Your task to perform on an android device: turn off priority inbox in the gmail app Image 0: 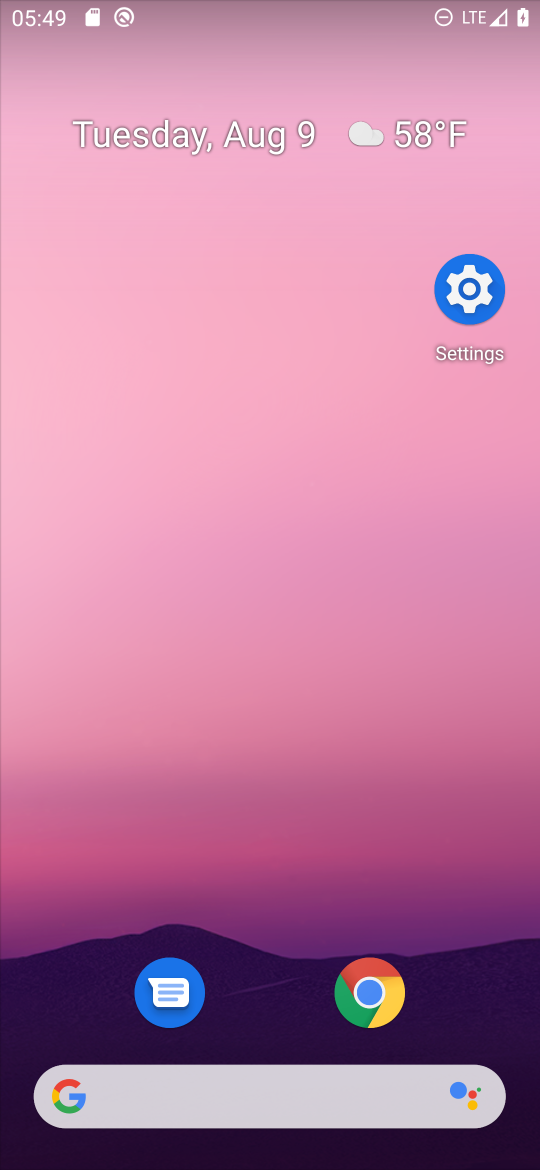
Step 0: drag from (322, 1102) to (445, 14)
Your task to perform on an android device: turn off priority inbox in the gmail app Image 1: 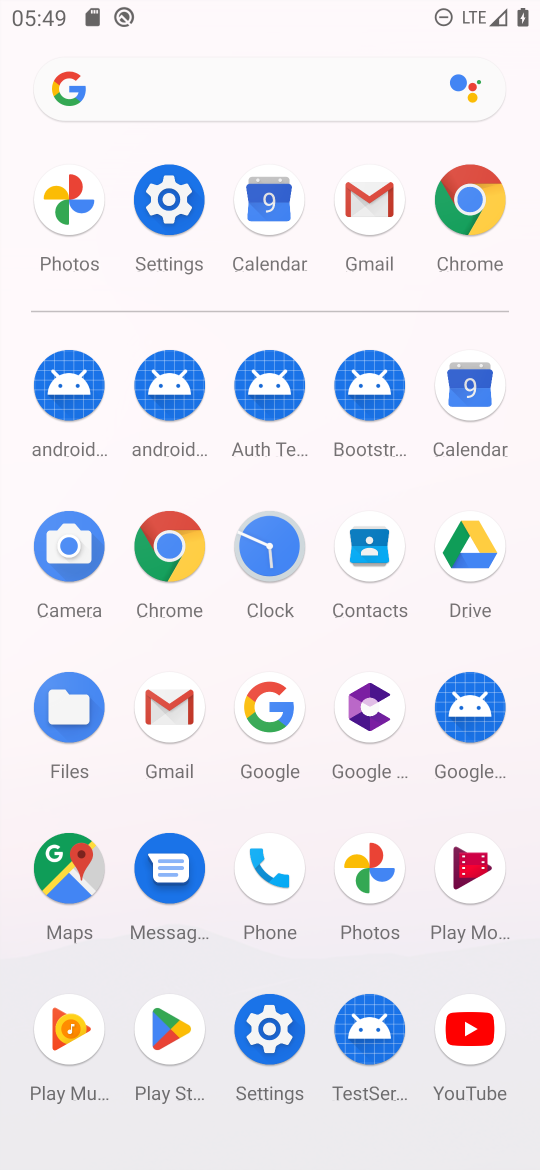
Step 1: click (151, 720)
Your task to perform on an android device: turn off priority inbox in the gmail app Image 2: 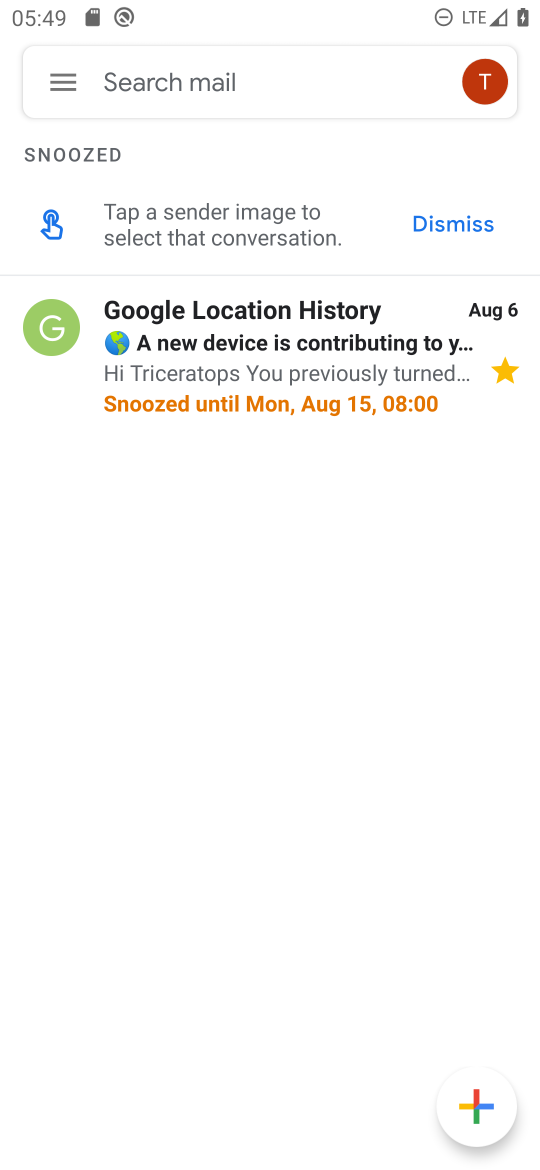
Step 2: click (48, 65)
Your task to perform on an android device: turn off priority inbox in the gmail app Image 3: 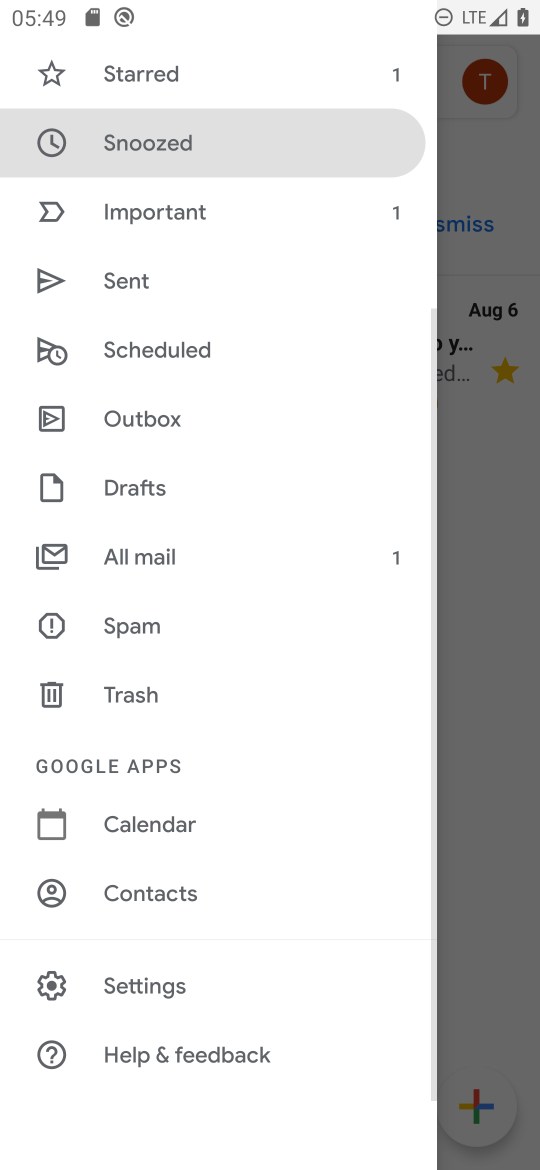
Step 3: click (122, 978)
Your task to perform on an android device: turn off priority inbox in the gmail app Image 4: 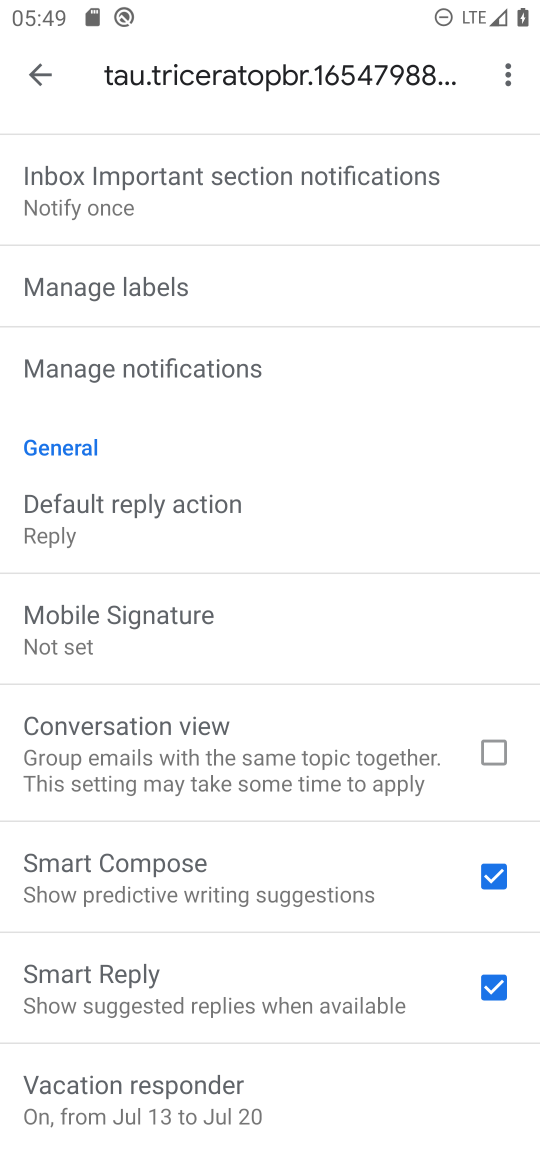
Step 4: click (277, 306)
Your task to perform on an android device: turn off priority inbox in the gmail app Image 5: 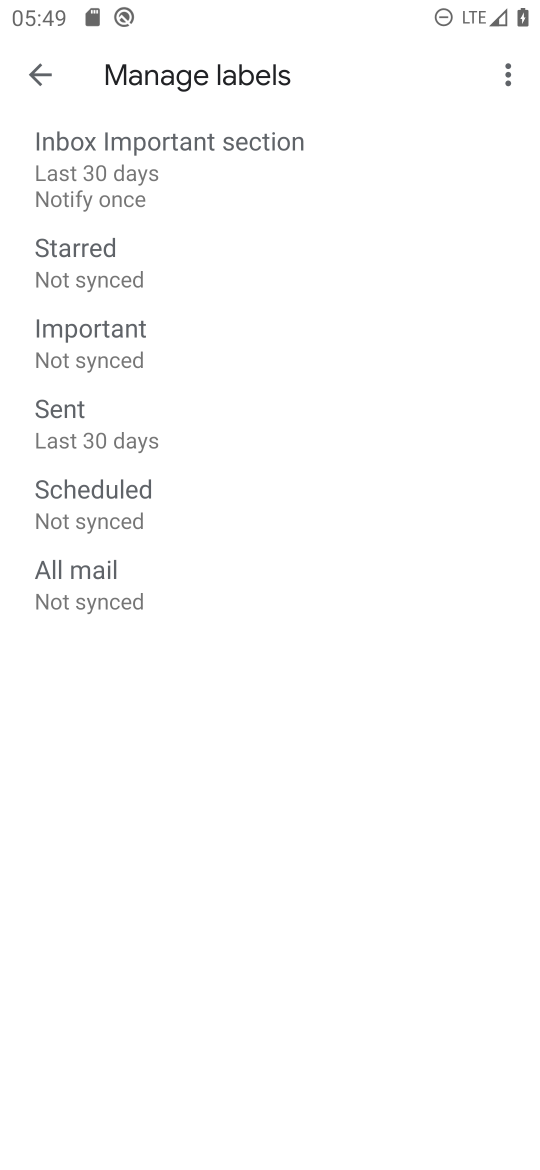
Step 5: press back button
Your task to perform on an android device: turn off priority inbox in the gmail app Image 6: 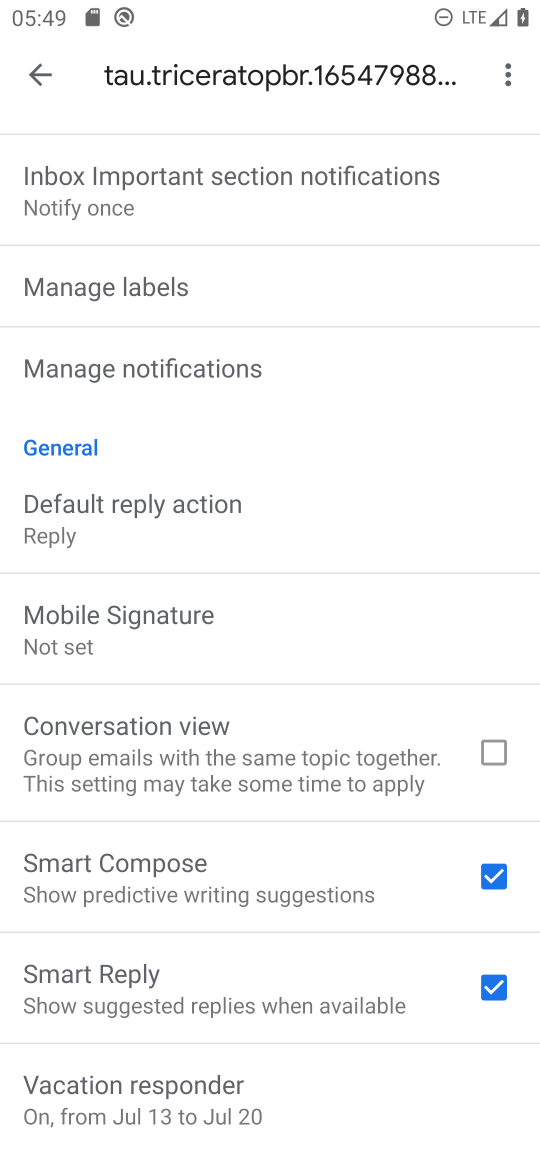
Step 6: drag from (438, 415) to (490, 1139)
Your task to perform on an android device: turn off priority inbox in the gmail app Image 7: 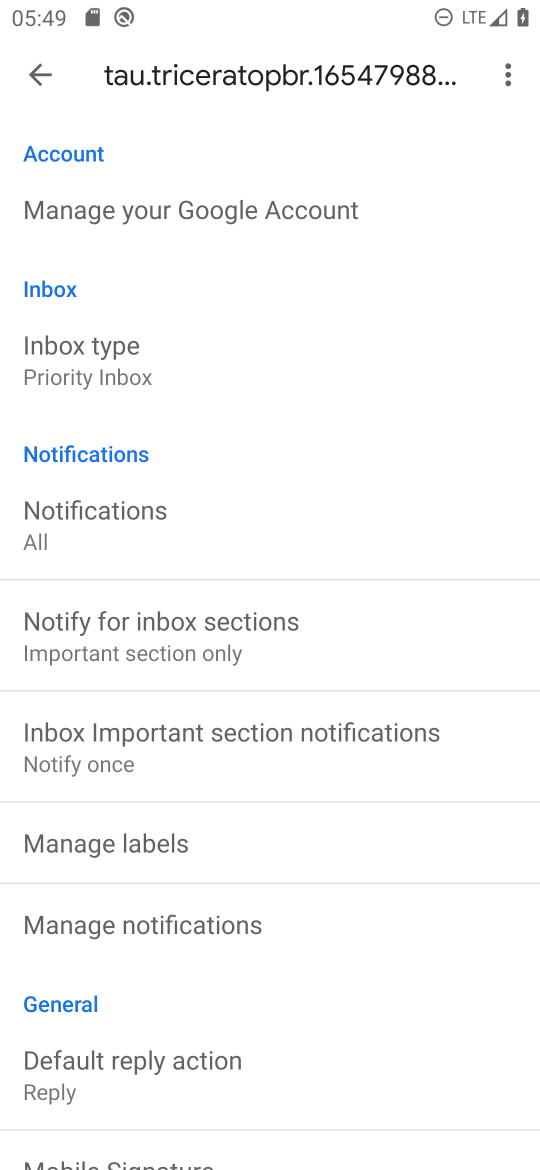
Step 7: click (163, 370)
Your task to perform on an android device: turn off priority inbox in the gmail app Image 8: 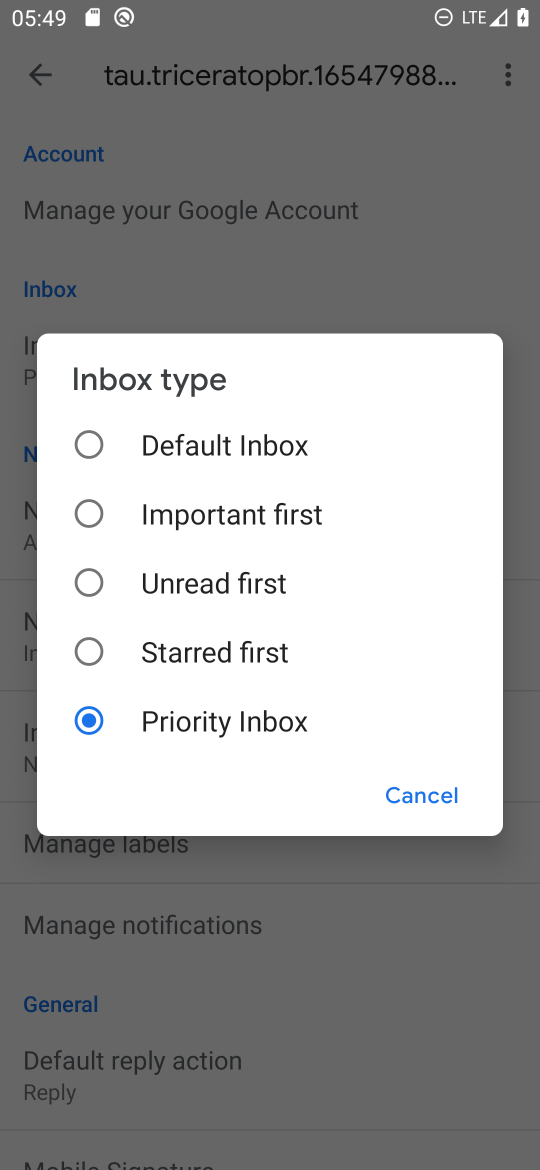
Step 8: click (79, 435)
Your task to perform on an android device: turn off priority inbox in the gmail app Image 9: 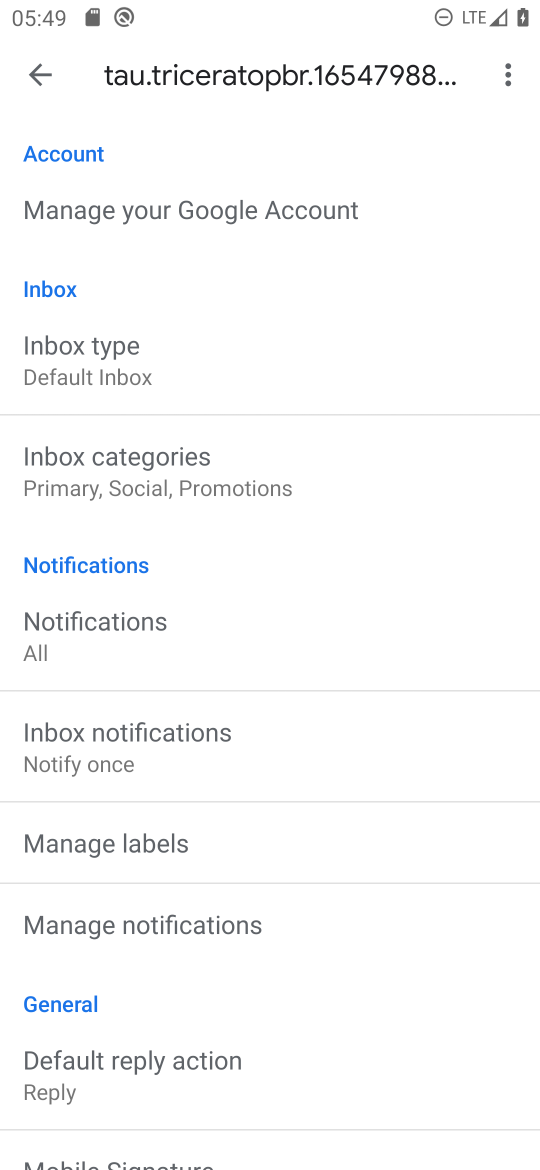
Step 9: press home button
Your task to perform on an android device: turn off priority inbox in the gmail app Image 10: 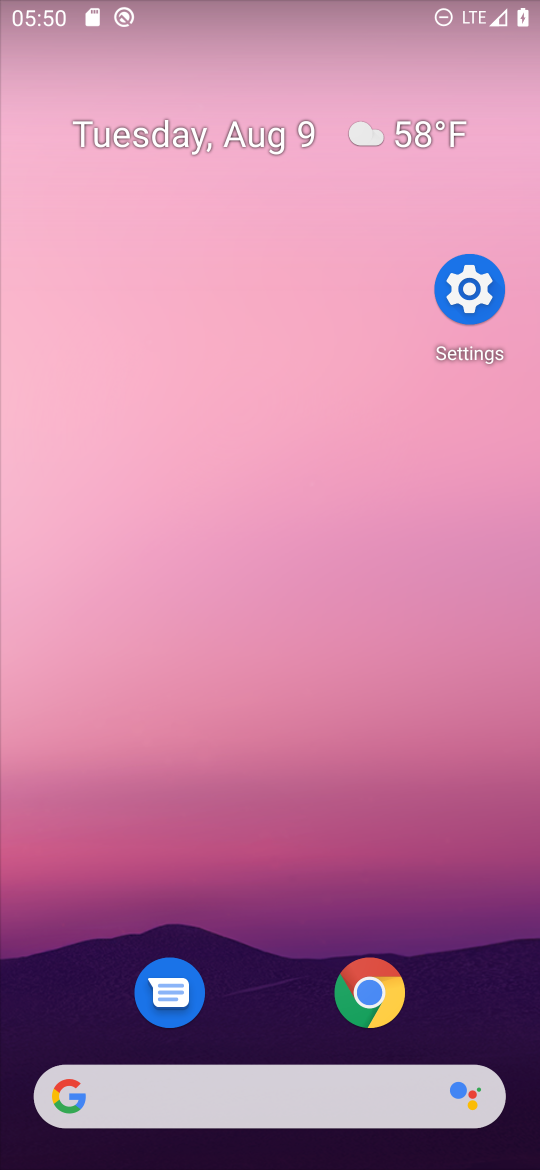
Step 10: drag from (361, 1104) to (237, 918)
Your task to perform on an android device: turn off priority inbox in the gmail app Image 11: 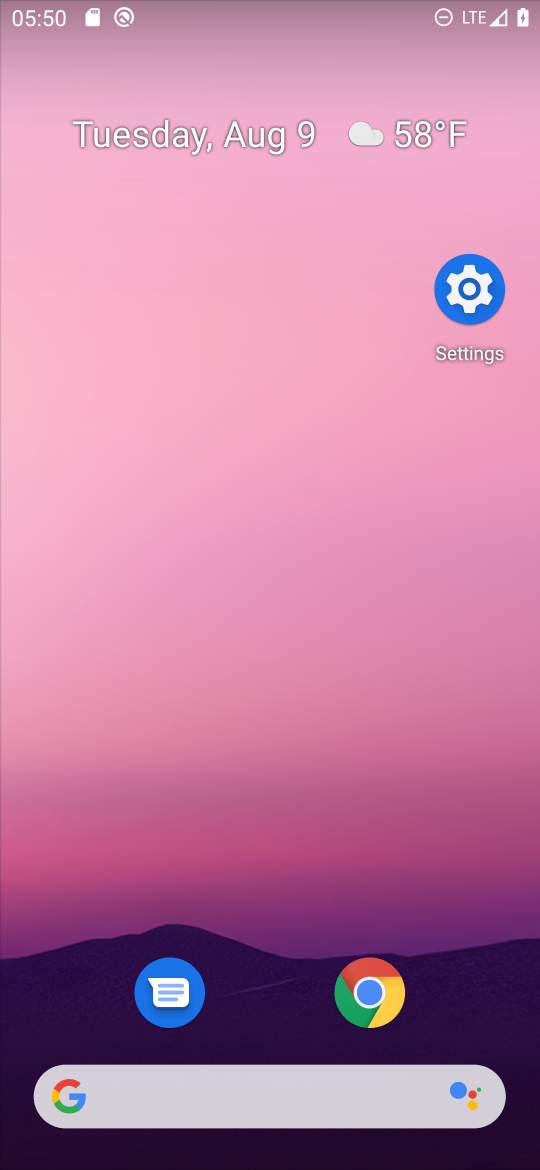
Step 11: drag from (261, 1140) to (284, 89)
Your task to perform on an android device: turn off priority inbox in the gmail app Image 12: 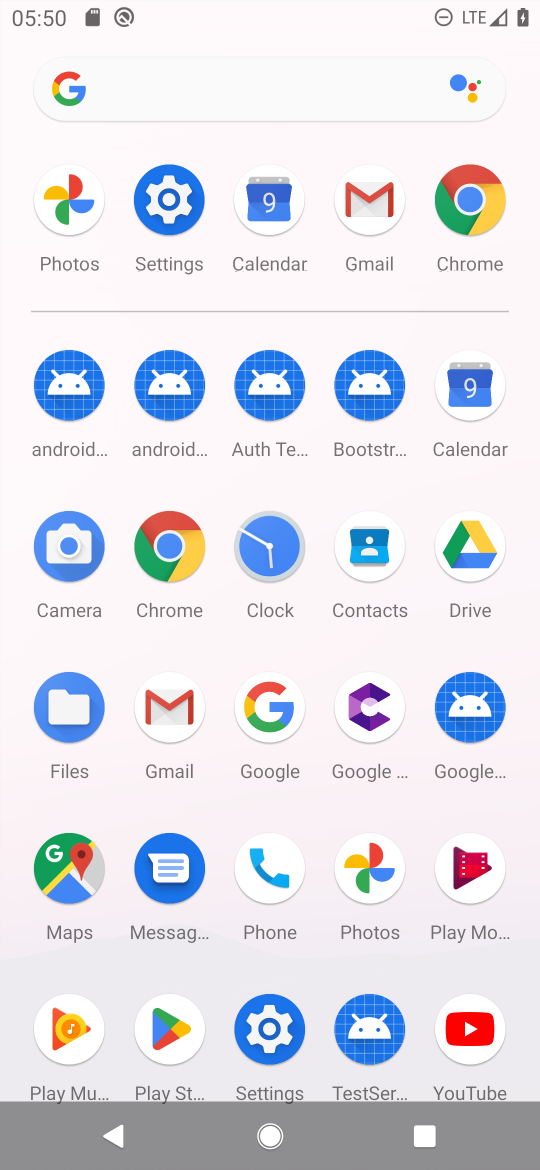
Step 12: click (175, 713)
Your task to perform on an android device: turn off priority inbox in the gmail app Image 13: 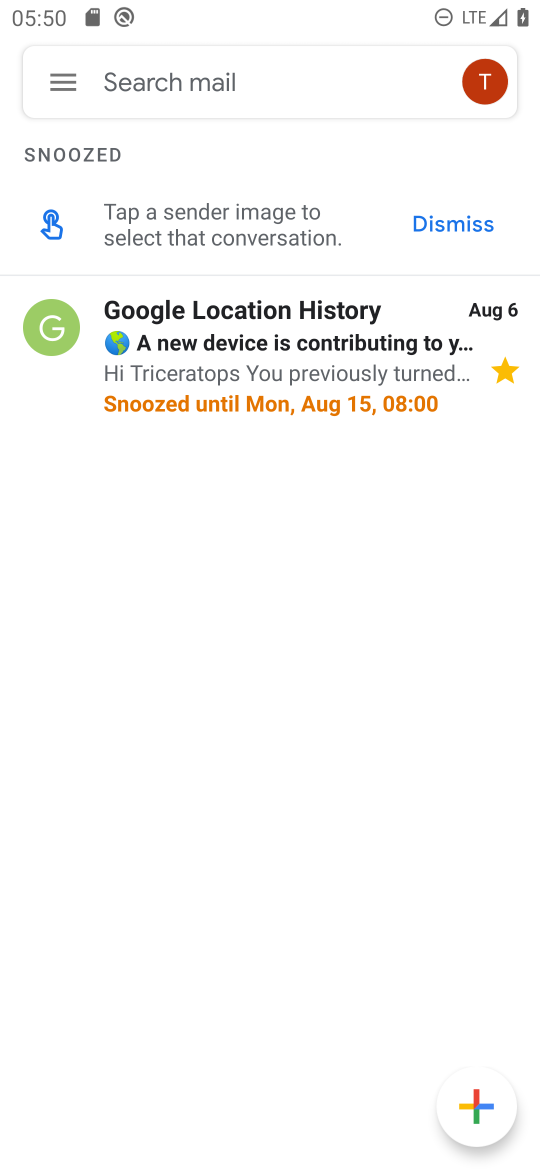
Step 13: click (63, 83)
Your task to perform on an android device: turn off priority inbox in the gmail app Image 14: 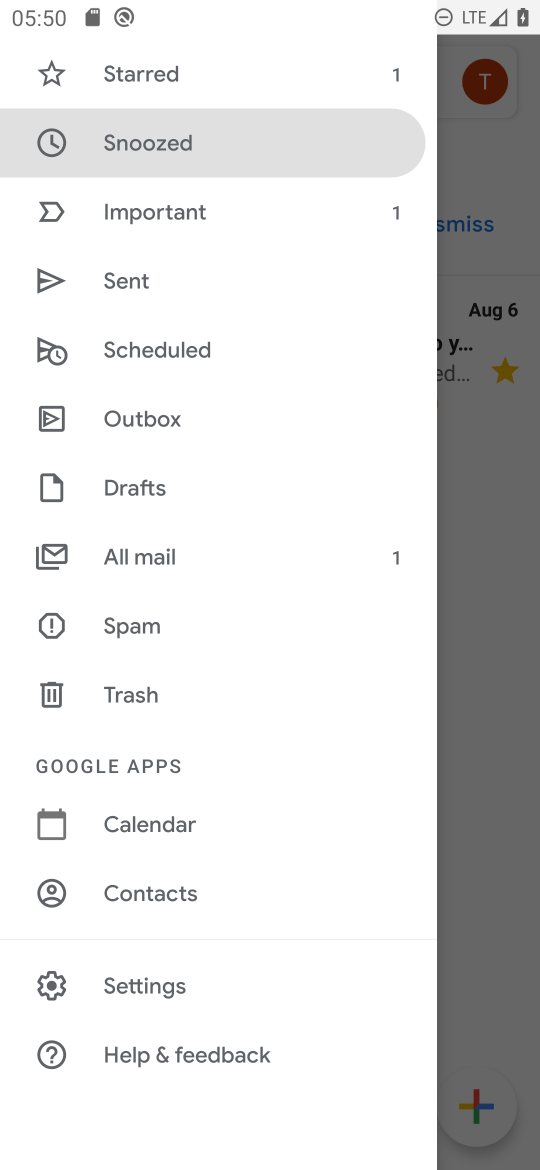
Step 14: click (178, 969)
Your task to perform on an android device: turn off priority inbox in the gmail app Image 15: 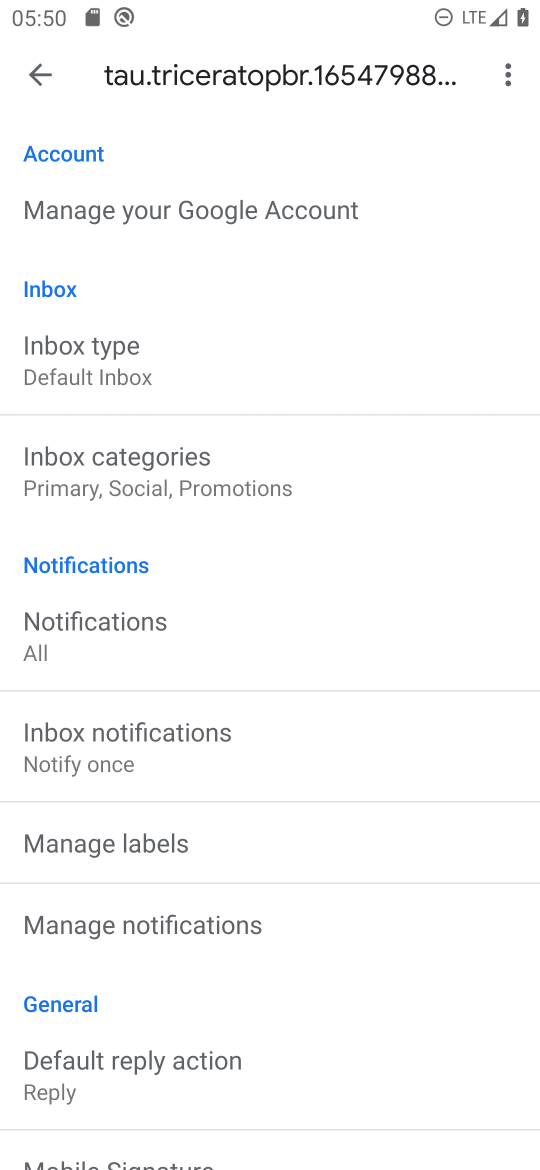
Step 15: task complete